Your task to perform on an android device: Open Google Chrome Image 0: 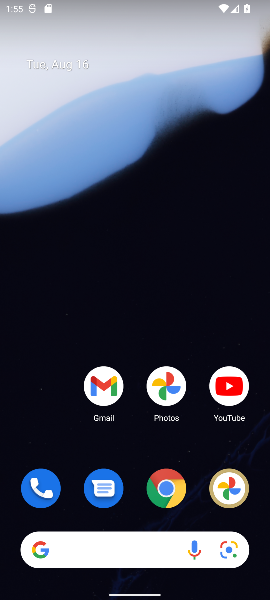
Step 0: click (161, 490)
Your task to perform on an android device: Open Google Chrome Image 1: 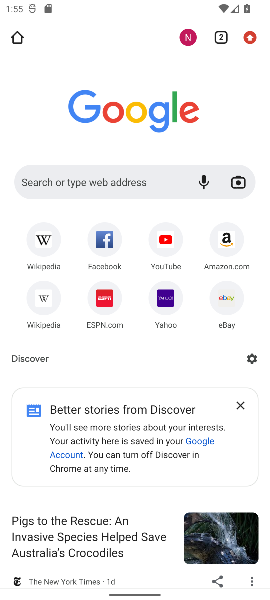
Step 1: task complete